Your task to perform on an android device: set an alarm Image 0: 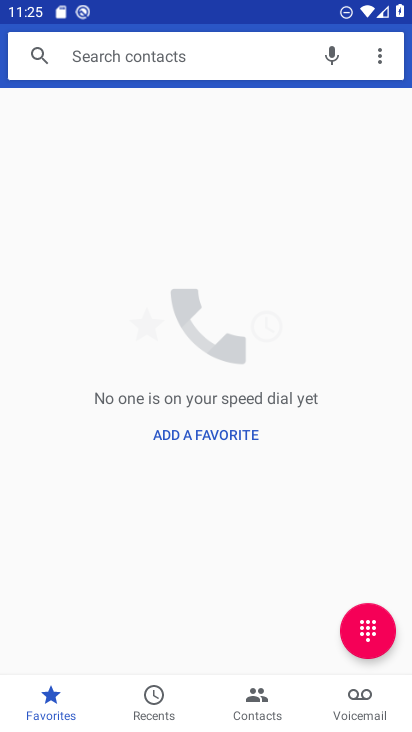
Step 0: press home button
Your task to perform on an android device: set an alarm Image 1: 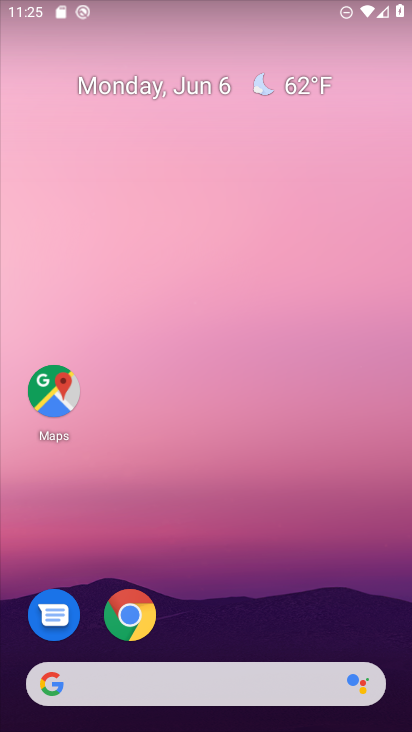
Step 1: drag from (206, 675) to (209, 74)
Your task to perform on an android device: set an alarm Image 2: 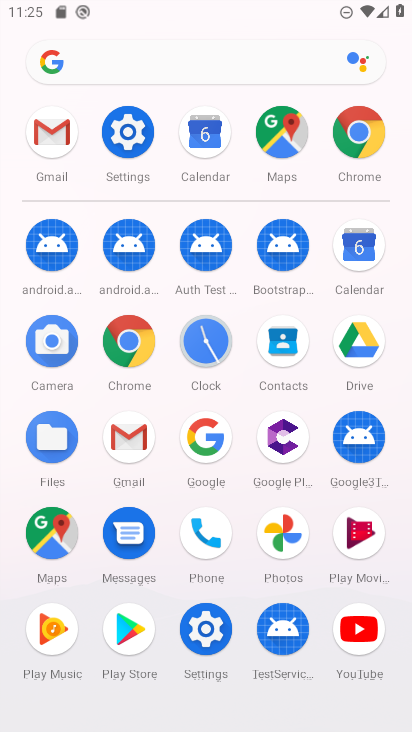
Step 2: click (209, 353)
Your task to perform on an android device: set an alarm Image 3: 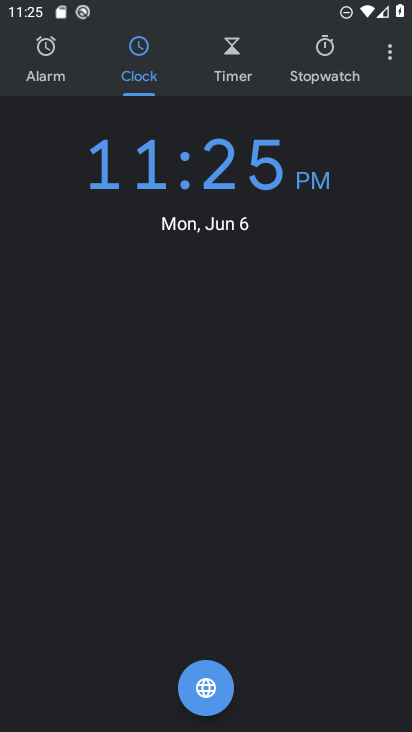
Step 3: click (44, 61)
Your task to perform on an android device: set an alarm Image 4: 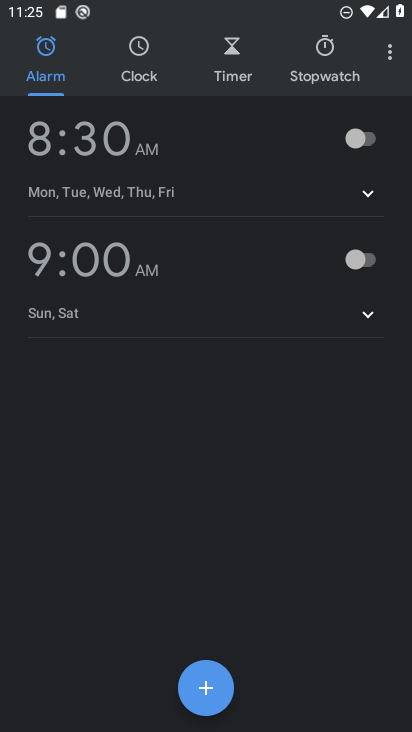
Step 4: click (201, 697)
Your task to perform on an android device: set an alarm Image 5: 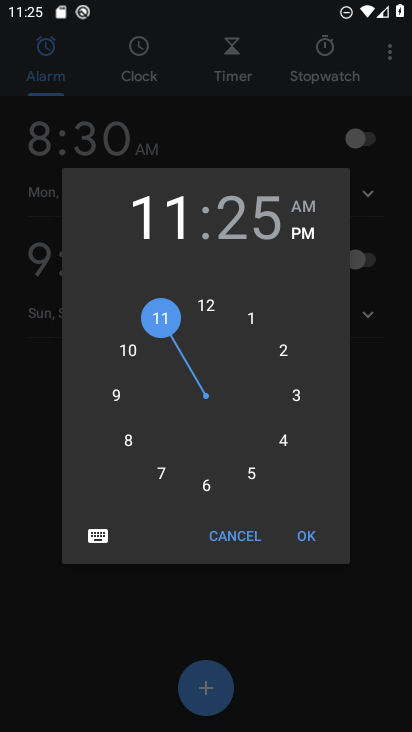
Step 5: click (256, 478)
Your task to perform on an android device: set an alarm Image 6: 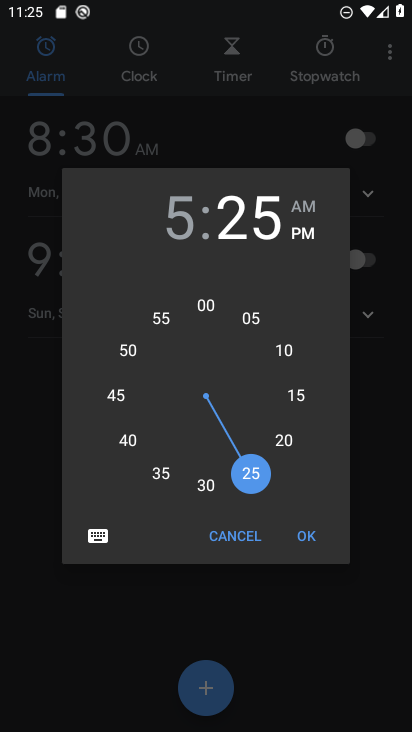
Step 6: click (304, 537)
Your task to perform on an android device: set an alarm Image 7: 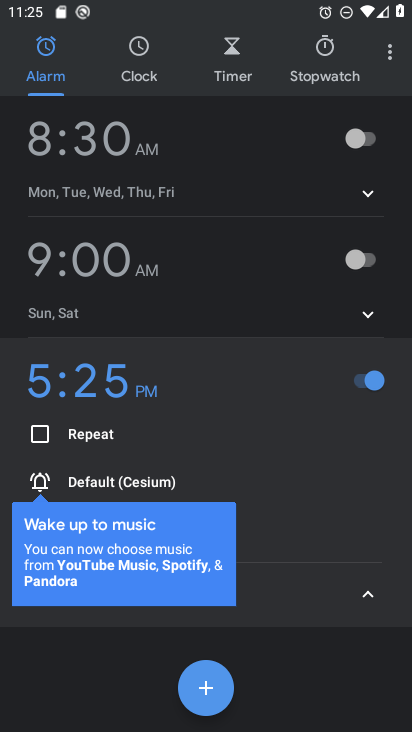
Step 7: task complete